Your task to perform on an android device: What's on my calendar tomorrow? Image 0: 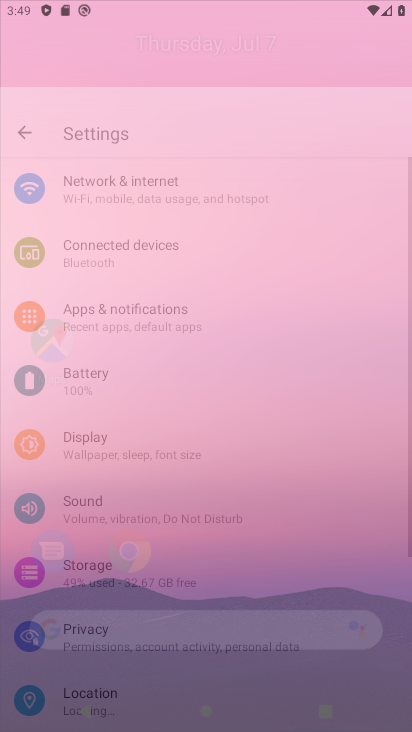
Step 0: press home button
Your task to perform on an android device: What's on my calendar tomorrow? Image 1: 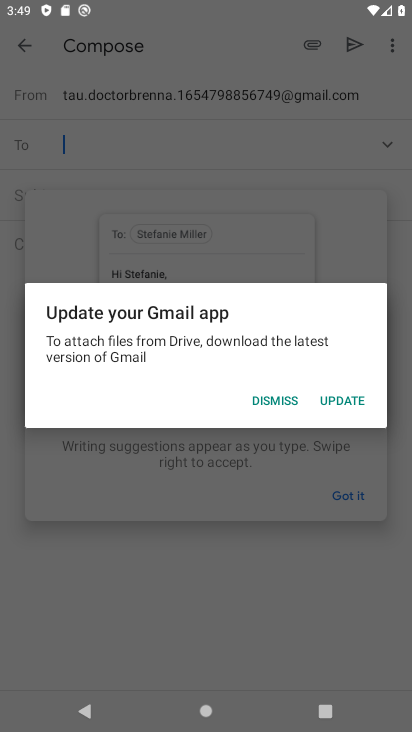
Step 1: press home button
Your task to perform on an android device: What's on my calendar tomorrow? Image 2: 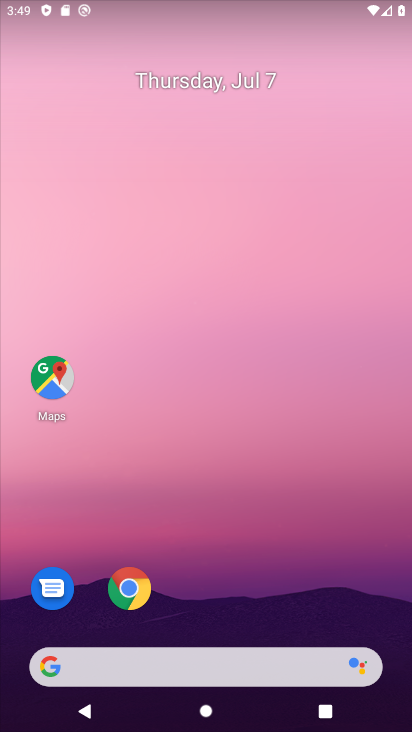
Step 2: drag from (282, 610) to (99, 0)
Your task to perform on an android device: What's on my calendar tomorrow? Image 3: 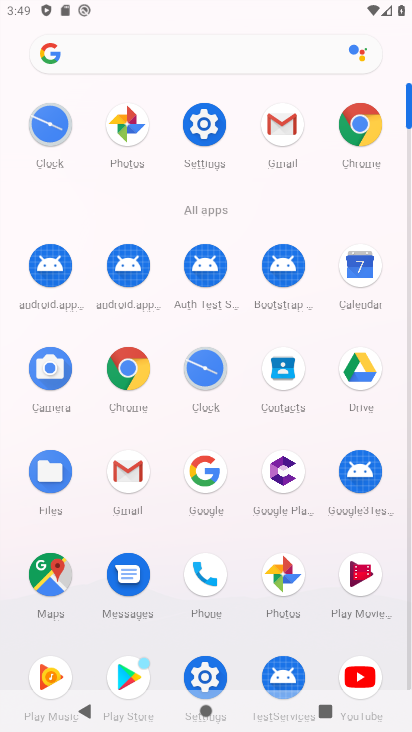
Step 3: click (348, 266)
Your task to perform on an android device: What's on my calendar tomorrow? Image 4: 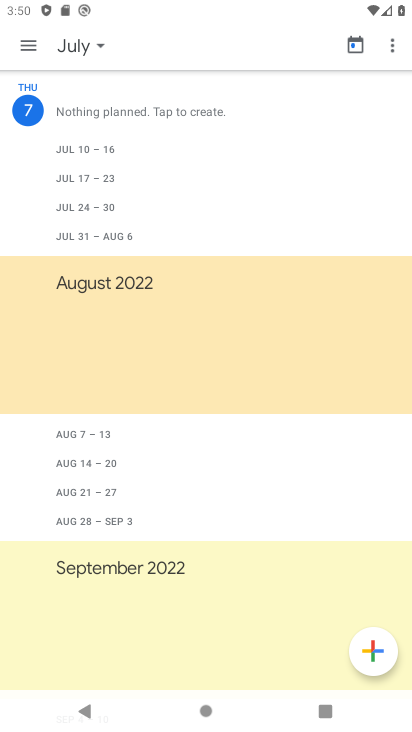
Step 4: click (101, 45)
Your task to perform on an android device: What's on my calendar tomorrow? Image 5: 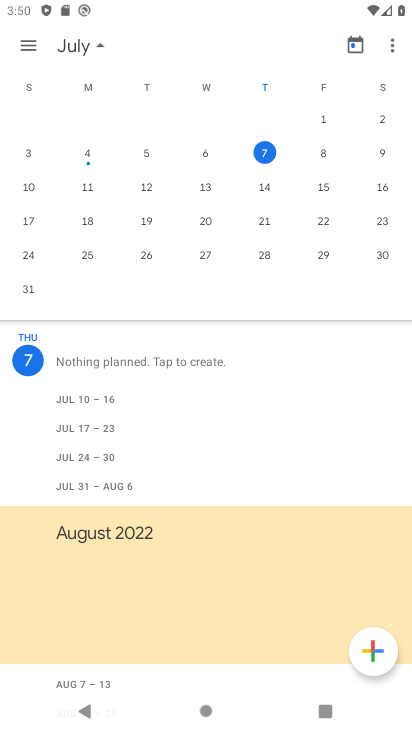
Step 5: click (325, 155)
Your task to perform on an android device: What's on my calendar tomorrow? Image 6: 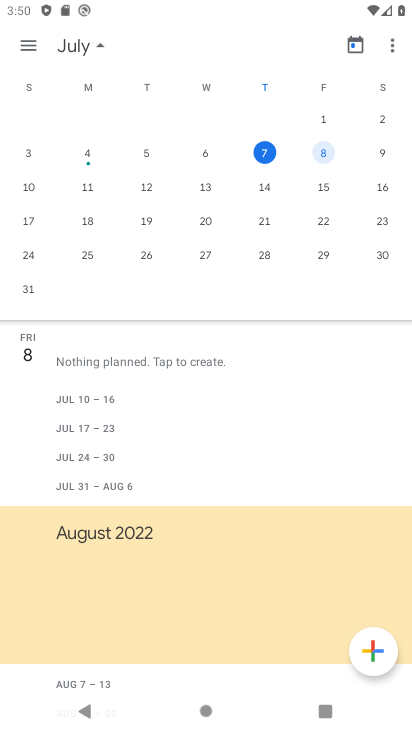
Step 6: task complete